Your task to perform on an android device: turn off data saver in the chrome app Image 0: 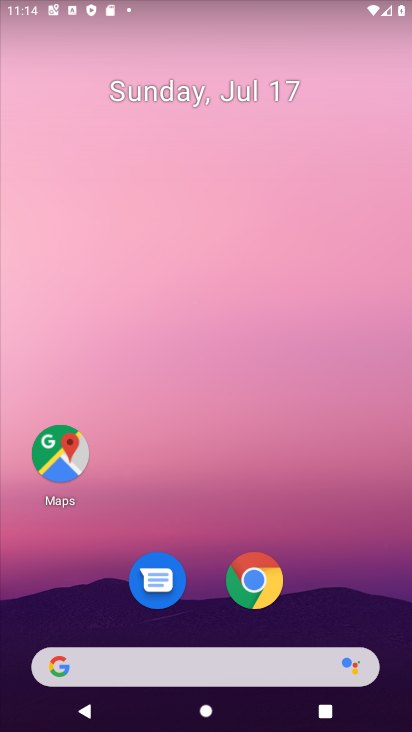
Step 0: drag from (102, 661) to (172, 201)
Your task to perform on an android device: turn off data saver in the chrome app Image 1: 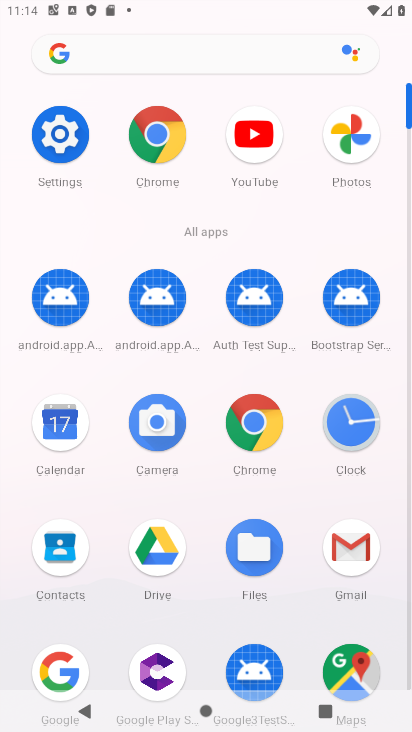
Step 1: click (263, 418)
Your task to perform on an android device: turn off data saver in the chrome app Image 2: 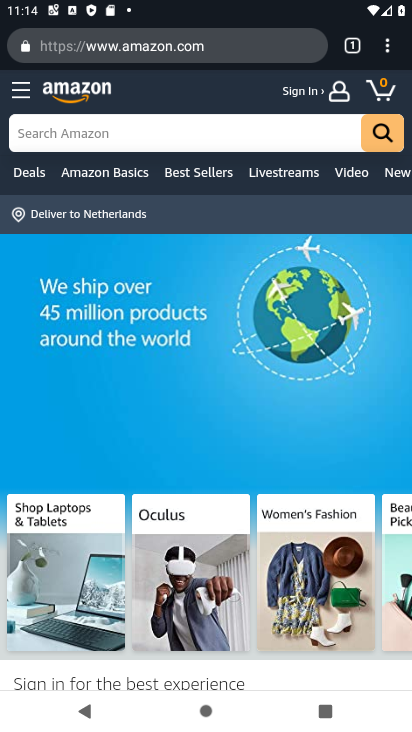
Step 2: click (384, 49)
Your task to perform on an android device: turn off data saver in the chrome app Image 3: 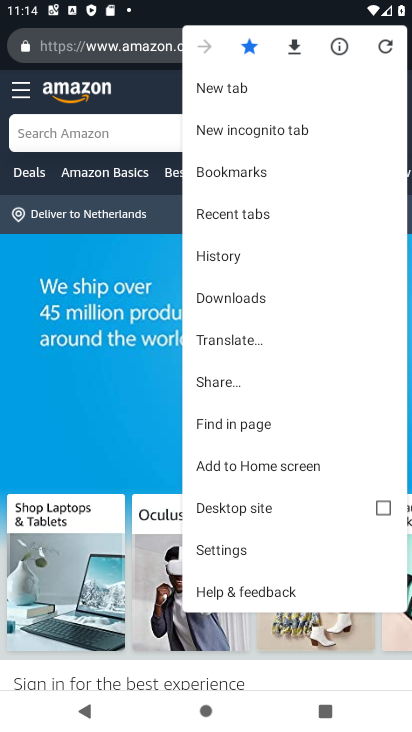
Step 3: drag from (249, 513) to (282, 264)
Your task to perform on an android device: turn off data saver in the chrome app Image 4: 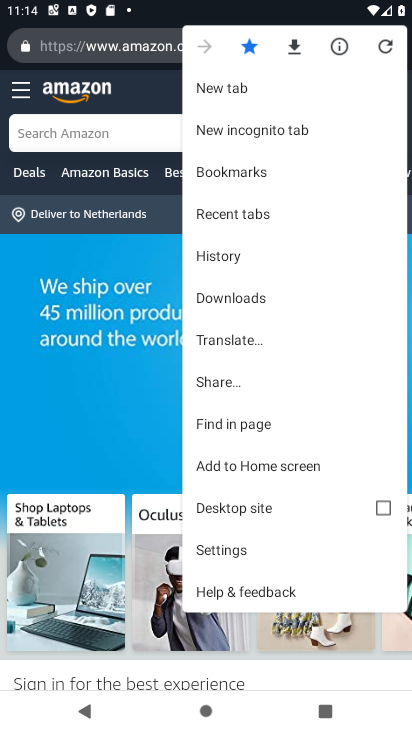
Step 4: click (242, 555)
Your task to perform on an android device: turn off data saver in the chrome app Image 5: 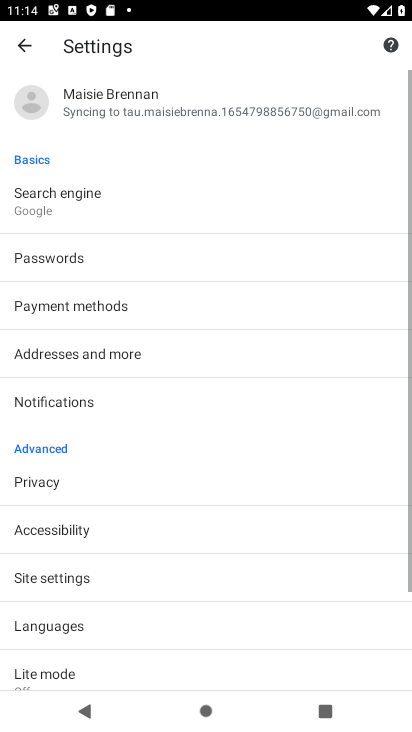
Step 5: drag from (242, 555) to (253, 220)
Your task to perform on an android device: turn off data saver in the chrome app Image 6: 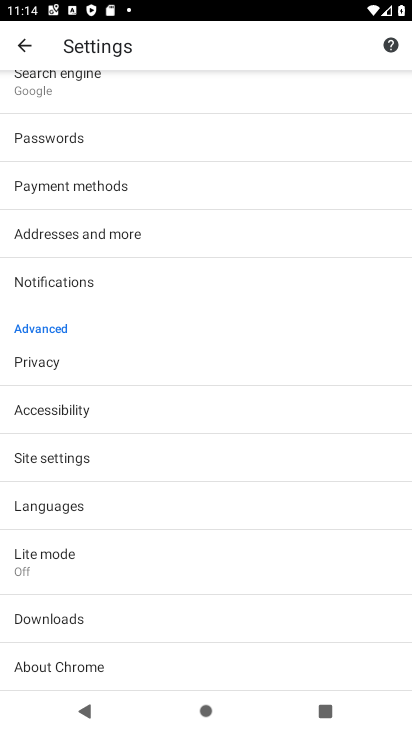
Step 6: drag from (109, 602) to (126, 352)
Your task to perform on an android device: turn off data saver in the chrome app Image 7: 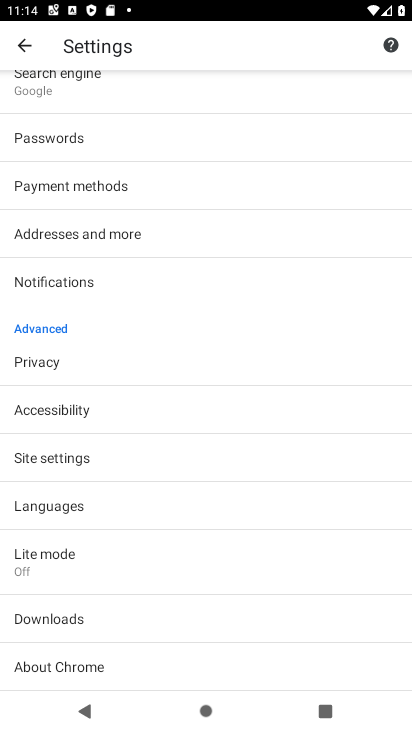
Step 7: click (89, 562)
Your task to perform on an android device: turn off data saver in the chrome app Image 8: 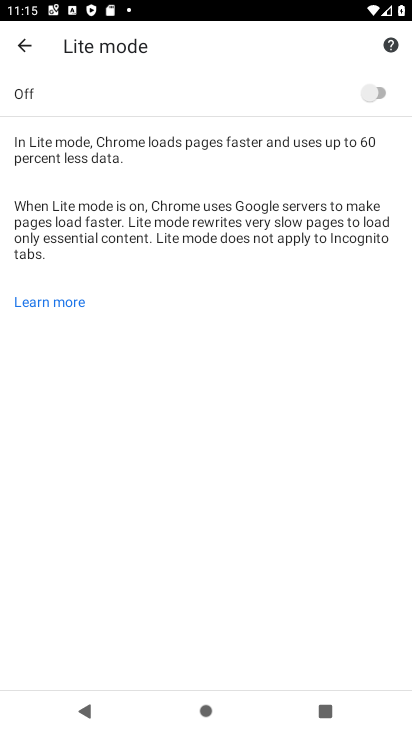
Step 8: task complete